Your task to perform on an android device: turn off airplane mode Image 0: 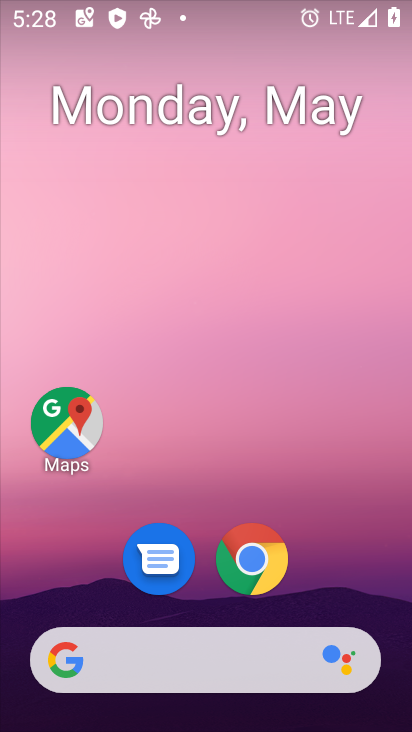
Step 0: drag from (304, 667) to (302, 50)
Your task to perform on an android device: turn off airplane mode Image 1: 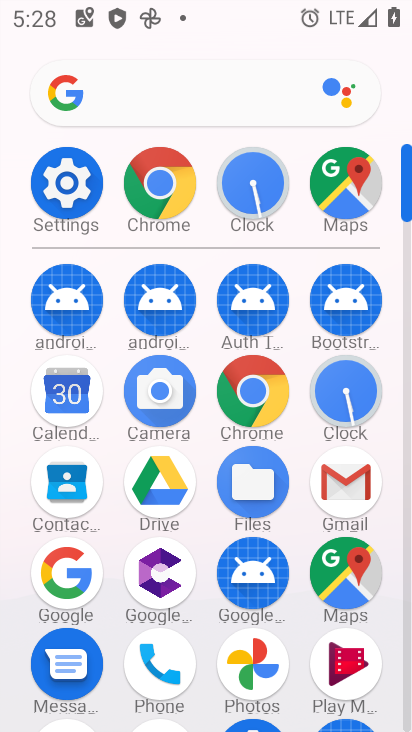
Step 1: click (62, 202)
Your task to perform on an android device: turn off airplane mode Image 2: 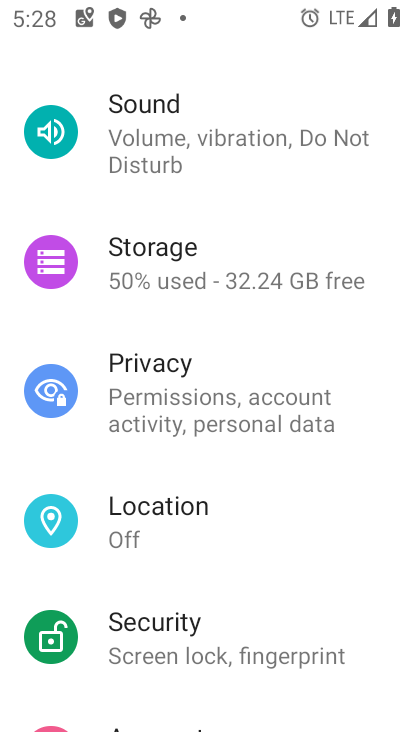
Step 2: drag from (254, 176) to (383, 275)
Your task to perform on an android device: turn off airplane mode Image 3: 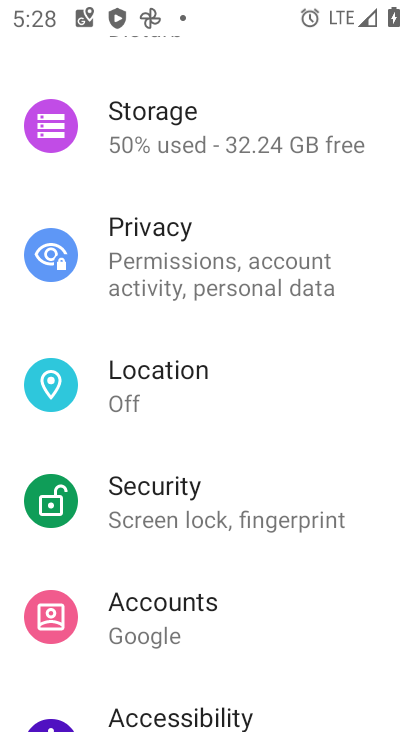
Step 3: drag from (260, 206) to (268, 713)
Your task to perform on an android device: turn off airplane mode Image 4: 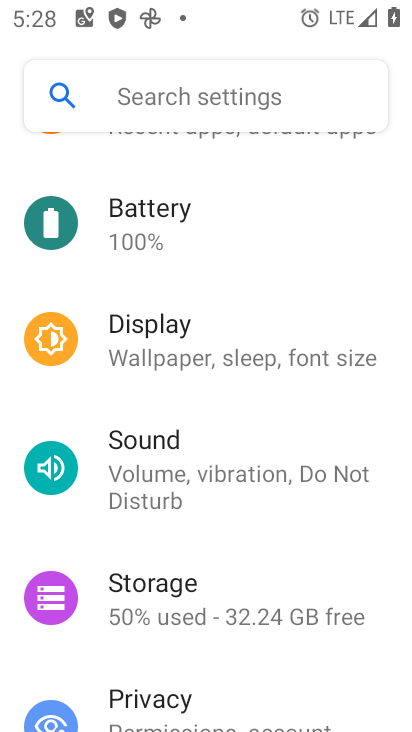
Step 4: drag from (320, 253) to (306, 720)
Your task to perform on an android device: turn off airplane mode Image 5: 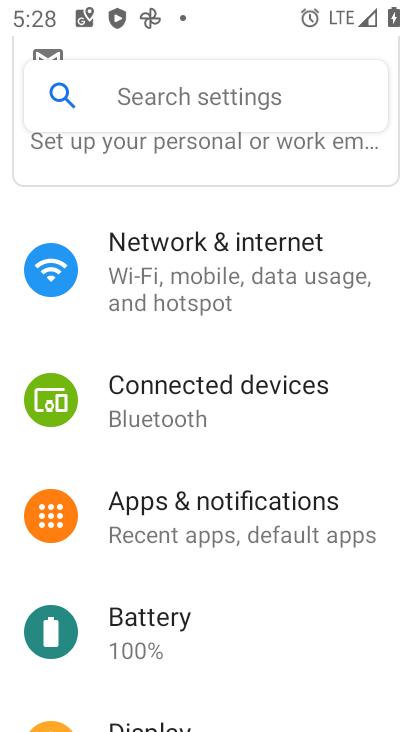
Step 5: click (291, 277)
Your task to perform on an android device: turn off airplane mode Image 6: 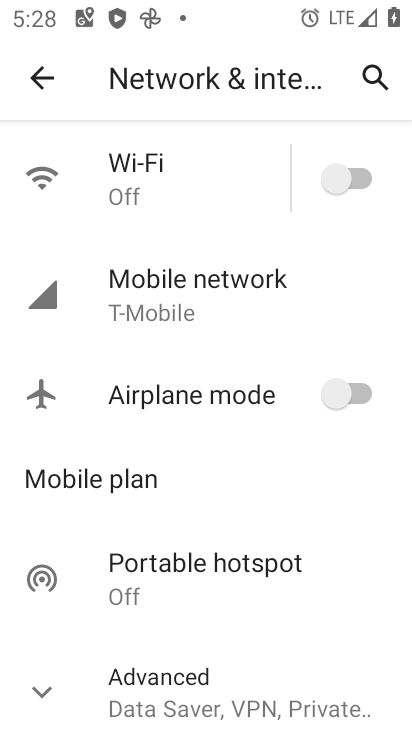
Step 6: task complete